Your task to perform on an android device: change the clock style Image 0: 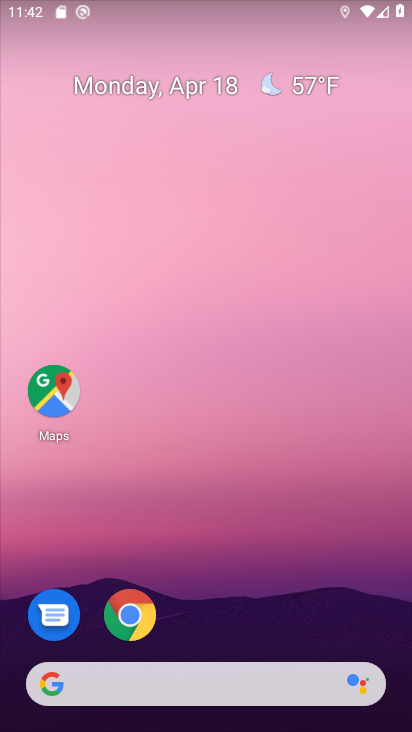
Step 0: click (68, 393)
Your task to perform on an android device: change the clock style Image 1: 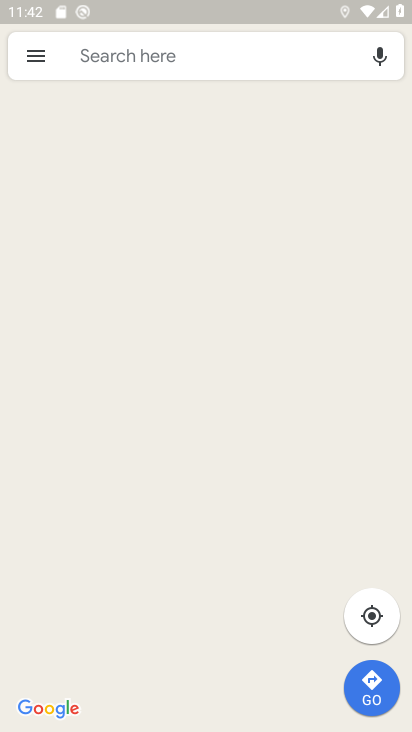
Step 1: press home button
Your task to perform on an android device: change the clock style Image 2: 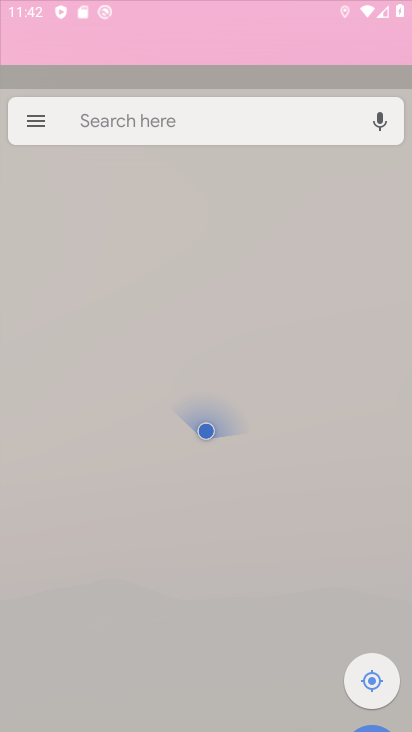
Step 2: press home button
Your task to perform on an android device: change the clock style Image 3: 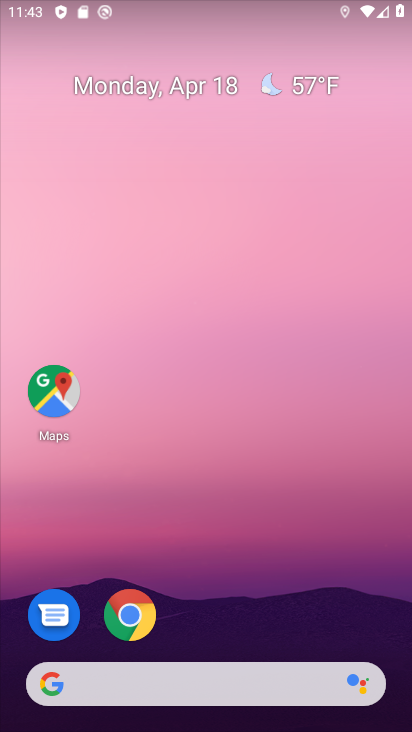
Step 3: drag from (242, 616) to (268, 141)
Your task to perform on an android device: change the clock style Image 4: 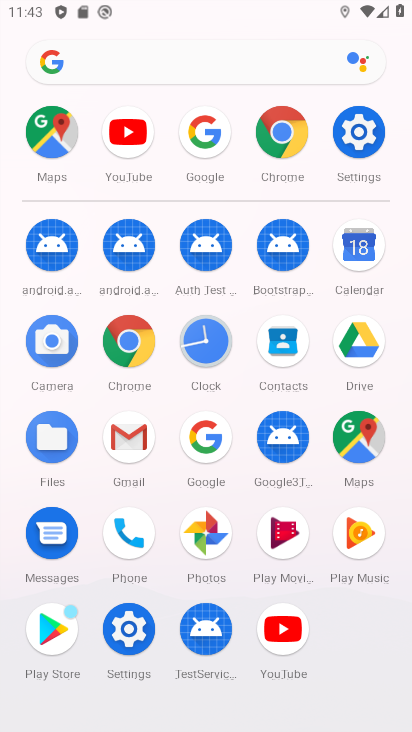
Step 4: click (211, 336)
Your task to perform on an android device: change the clock style Image 5: 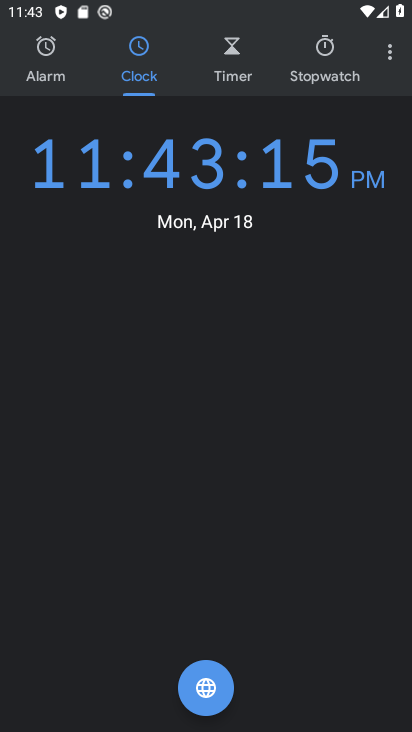
Step 5: click (388, 45)
Your task to perform on an android device: change the clock style Image 6: 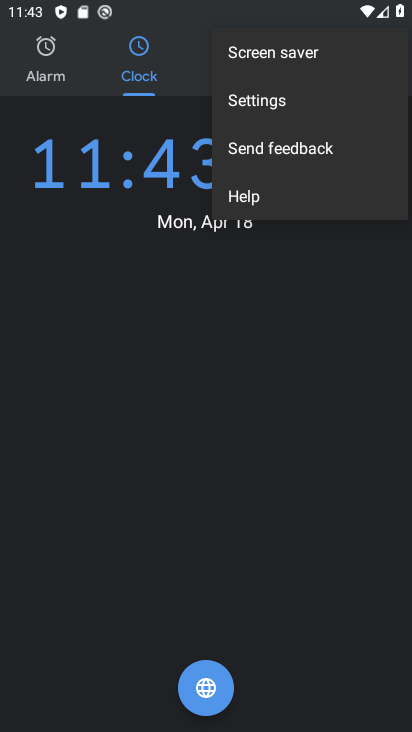
Step 6: click (252, 96)
Your task to perform on an android device: change the clock style Image 7: 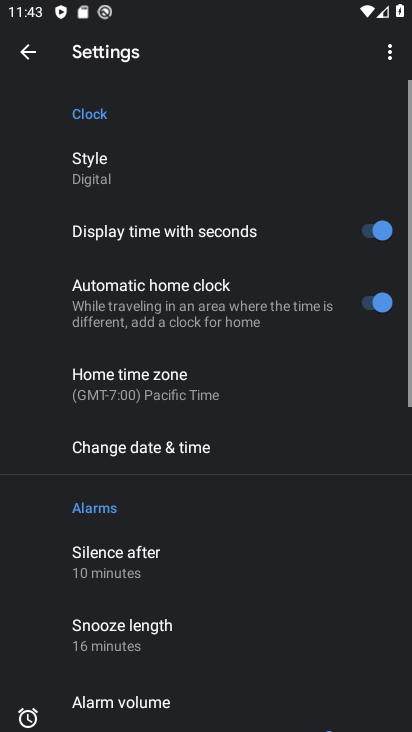
Step 7: click (149, 155)
Your task to perform on an android device: change the clock style Image 8: 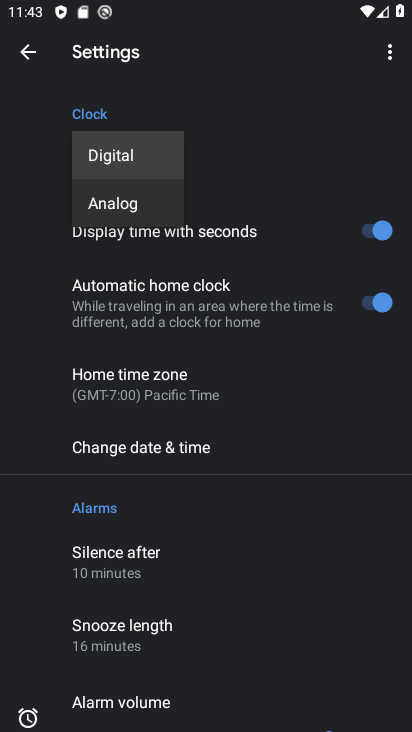
Step 8: click (127, 201)
Your task to perform on an android device: change the clock style Image 9: 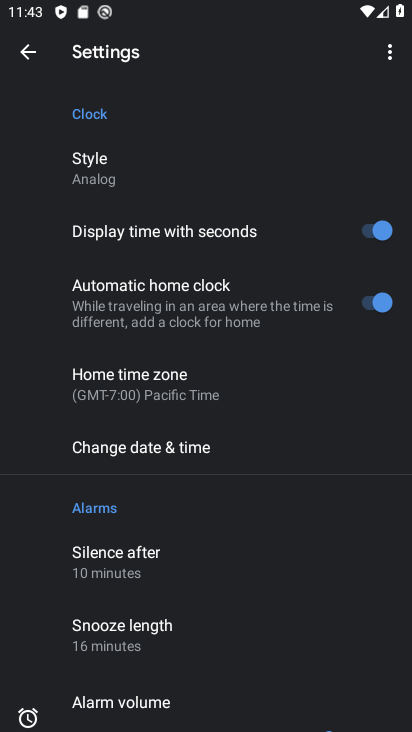
Step 9: task complete